Your task to perform on an android device: Open Google Maps Image 0: 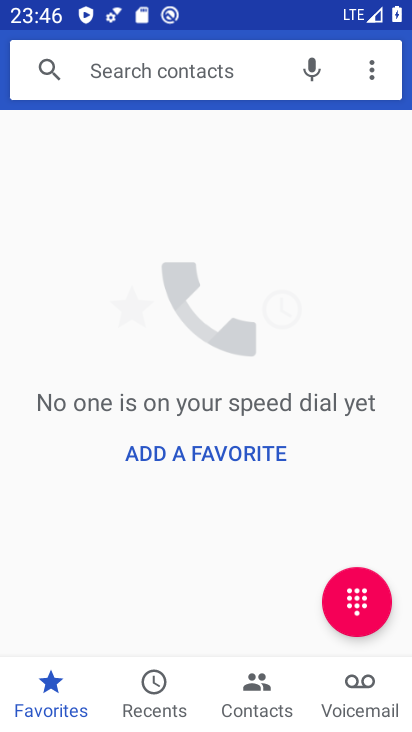
Step 0: press home button
Your task to perform on an android device: Open Google Maps Image 1: 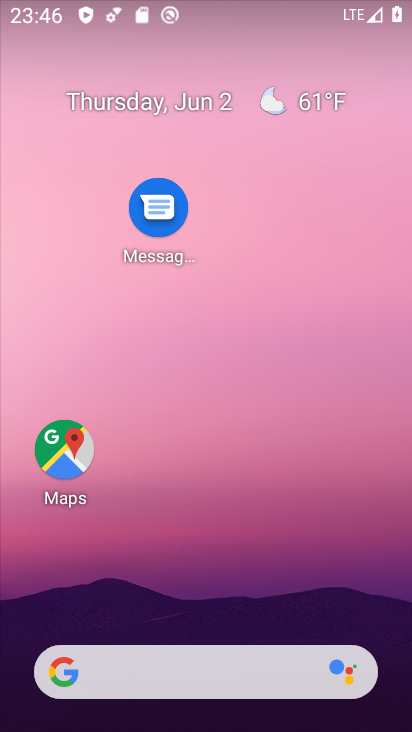
Step 1: drag from (199, 628) to (359, 35)
Your task to perform on an android device: Open Google Maps Image 2: 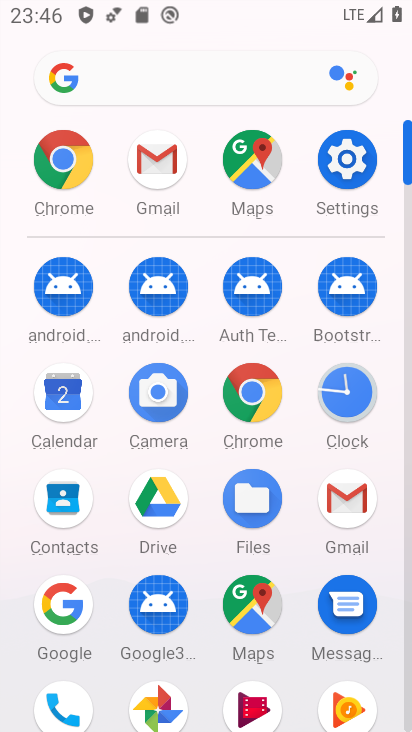
Step 2: click (254, 617)
Your task to perform on an android device: Open Google Maps Image 3: 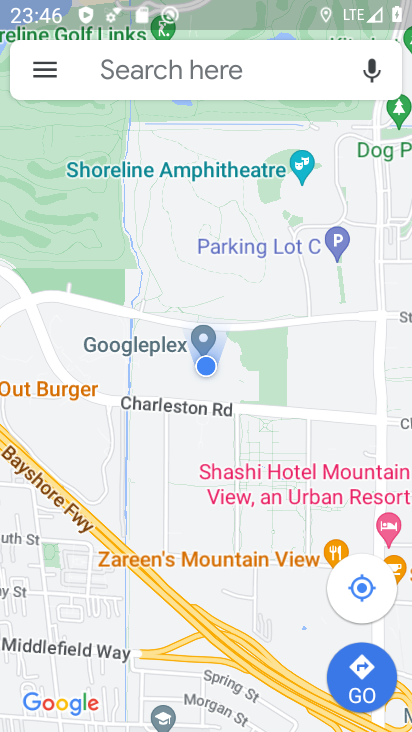
Step 3: task complete